Your task to perform on an android device: add a contact in the contacts app Image 0: 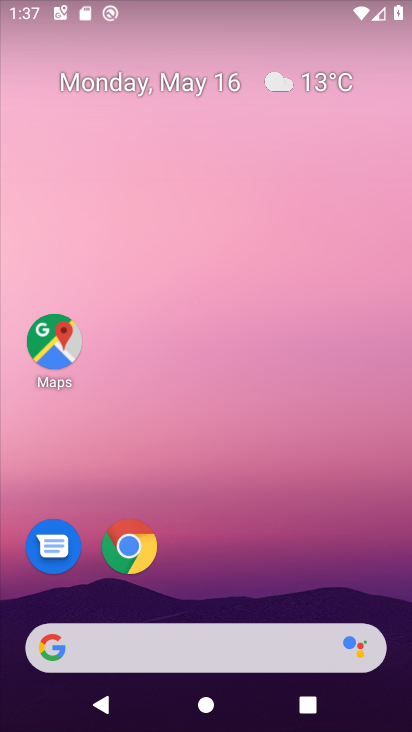
Step 0: drag from (232, 711) to (232, 48)
Your task to perform on an android device: add a contact in the contacts app Image 1: 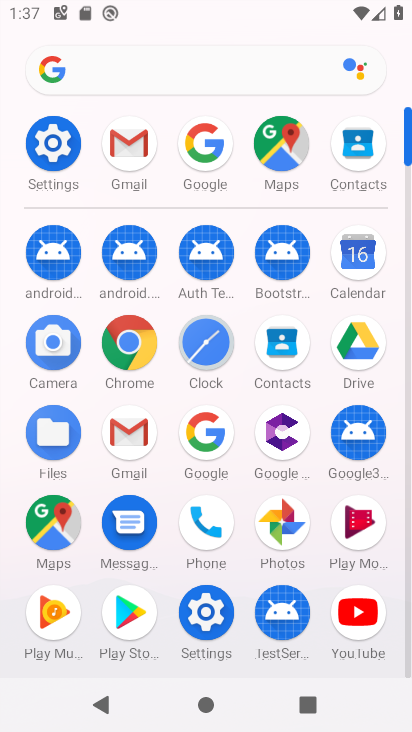
Step 1: click (286, 346)
Your task to perform on an android device: add a contact in the contacts app Image 2: 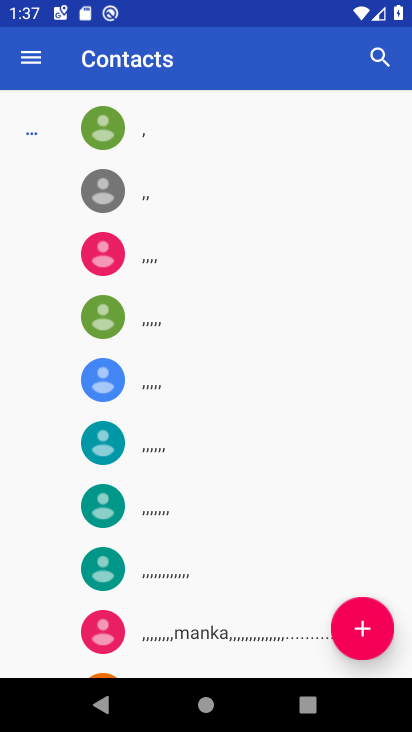
Step 2: click (360, 634)
Your task to perform on an android device: add a contact in the contacts app Image 3: 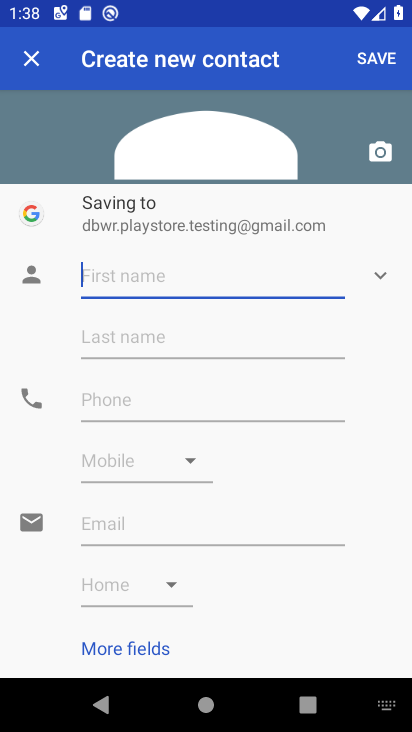
Step 3: type "joker"
Your task to perform on an android device: add a contact in the contacts app Image 4: 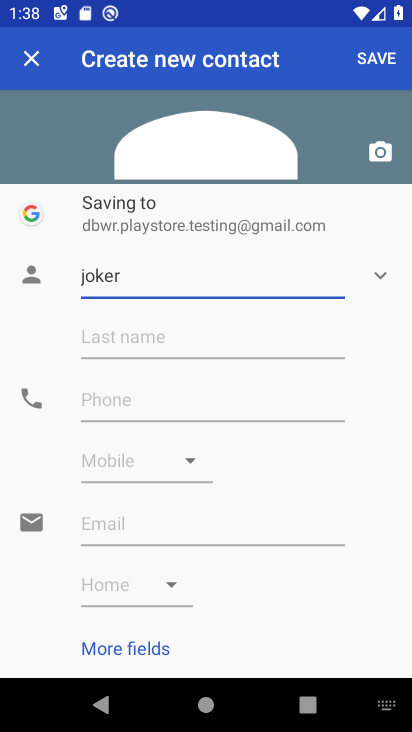
Step 4: click (124, 400)
Your task to perform on an android device: add a contact in the contacts app Image 5: 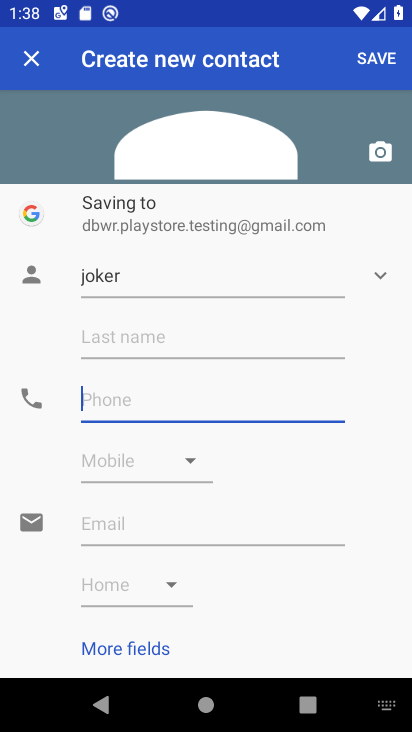
Step 5: type "89876"
Your task to perform on an android device: add a contact in the contacts app Image 6: 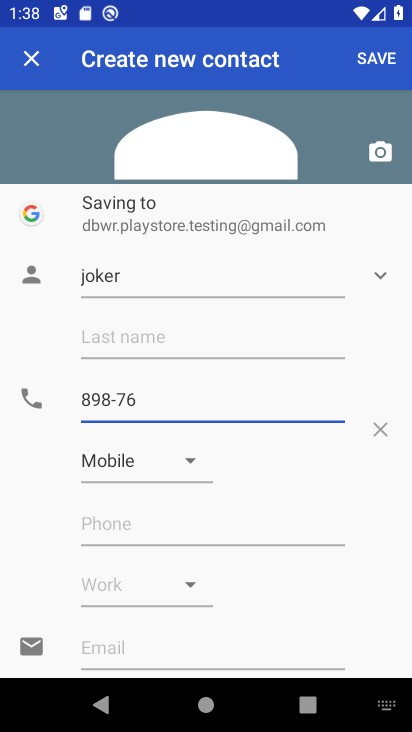
Step 6: click (377, 56)
Your task to perform on an android device: add a contact in the contacts app Image 7: 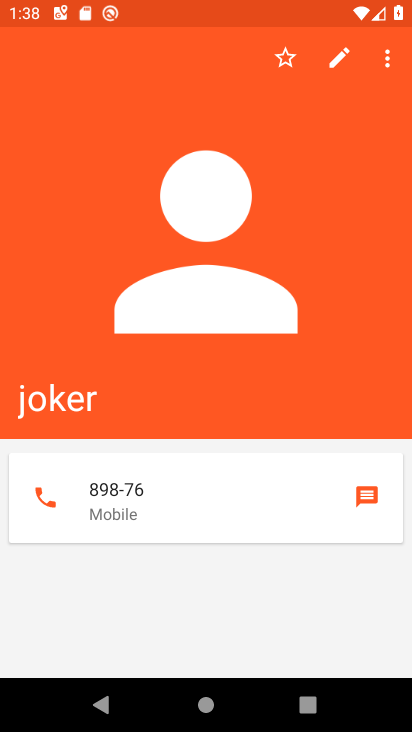
Step 7: task complete